Your task to perform on an android device: turn on showing notifications on the lock screen Image 0: 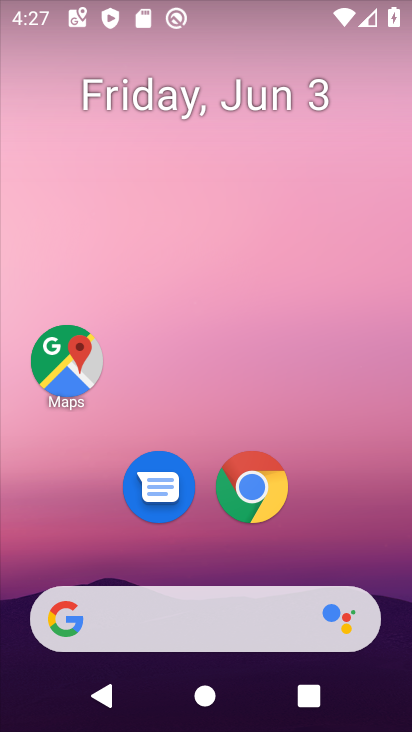
Step 0: click (312, 6)
Your task to perform on an android device: turn on showing notifications on the lock screen Image 1: 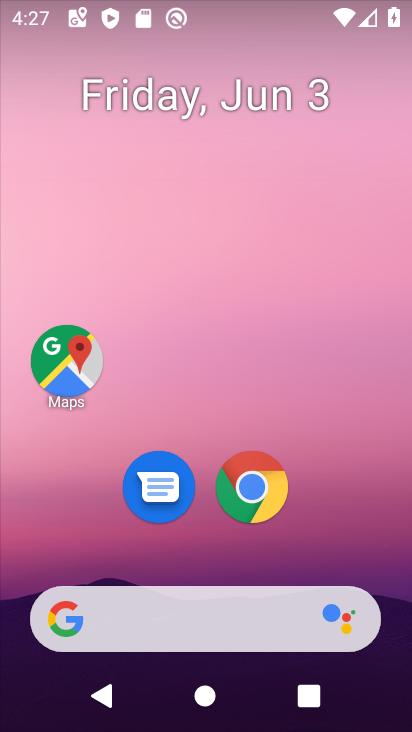
Step 1: drag from (222, 524) to (232, 231)
Your task to perform on an android device: turn on showing notifications on the lock screen Image 2: 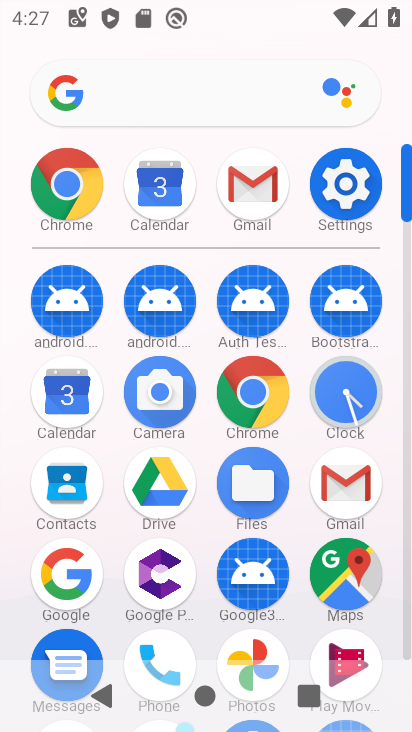
Step 2: click (353, 185)
Your task to perform on an android device: turn on showing notifications on the lock screen Image 3: 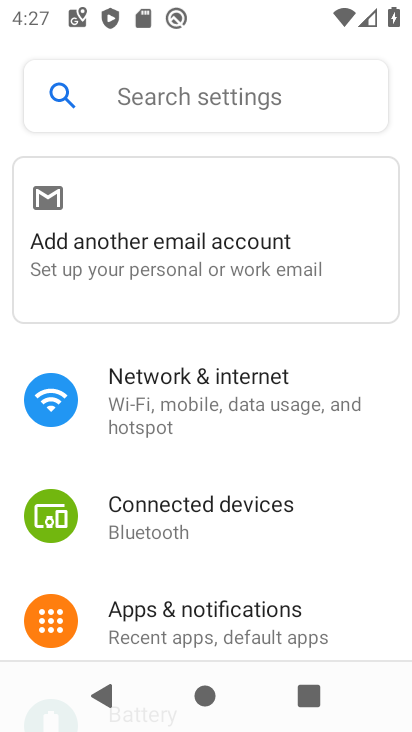
Step 3: drag from (222, 512) to (310, 233)
Your task to perform on an android device: turn on showing notifications on the lock screen Image 4: 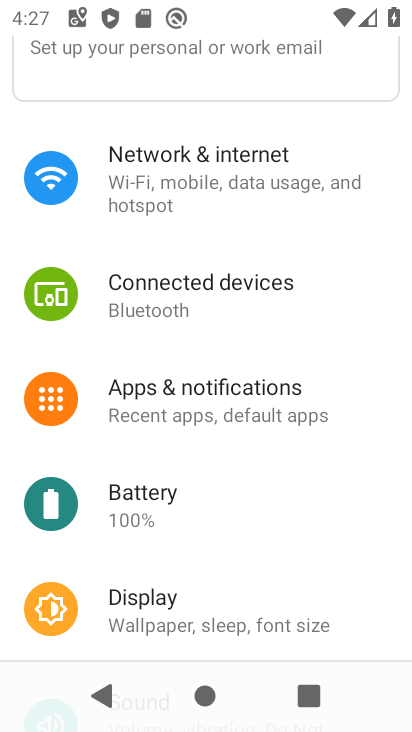
Step 4: click (204, 404)
Your task to perform on an android device: turn on showing notifications on the lock screen Image 5: 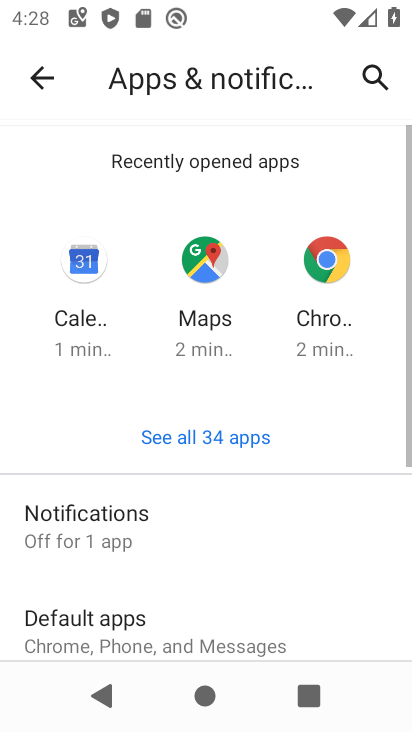
Step 5: click (190, 530)
Your task to perform on an android device: turn on showing notifications on the lock screen Image 6: 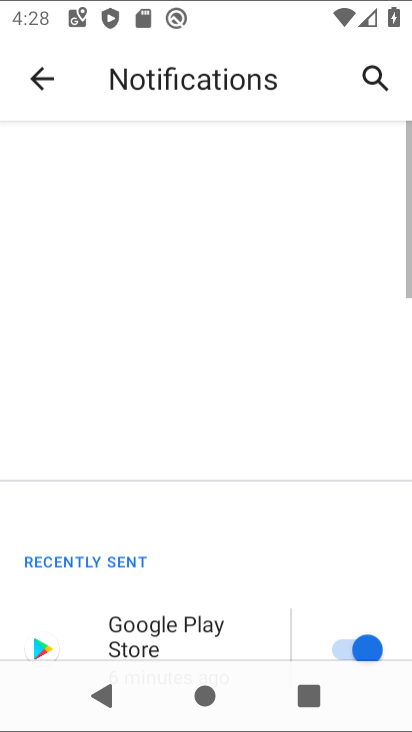
Step 6: drag from (208, 520) to (347, 25)
Your task to perform on an android device: turn on showing notifications on the lock screen Image 7: 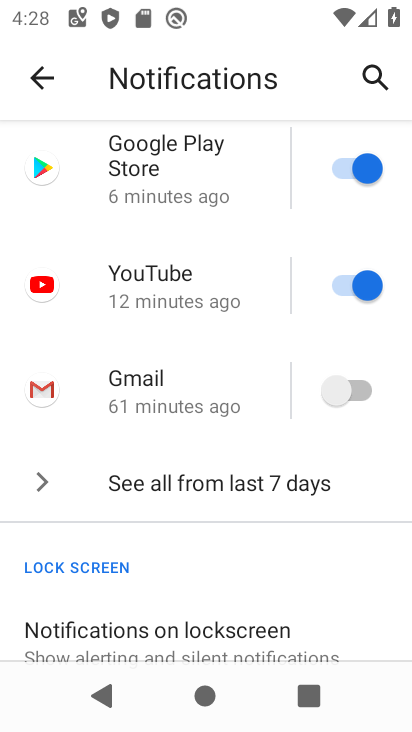
Step 7: drag from (209, 620) to (298, 161)
Your task to perform on an android device: turn on showing notifications on the lock screen Image 8: 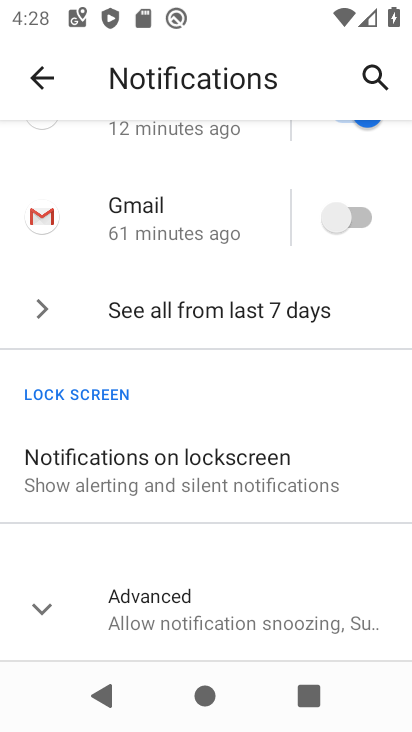
Step 8: click (218, 465)
Your task to perform on an android device: turn on showing notifications on the lock screen Image 9: 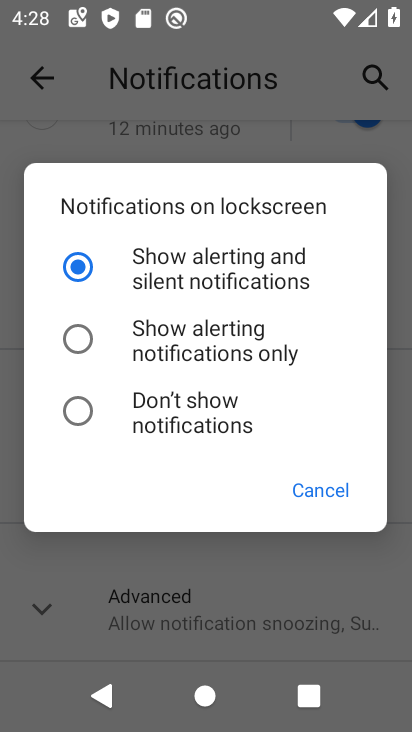
Step 9: drag from (234, 434) to (317, 159)
Your task to perform on an android device: turn on showing notifications on the lock screen Image 10: 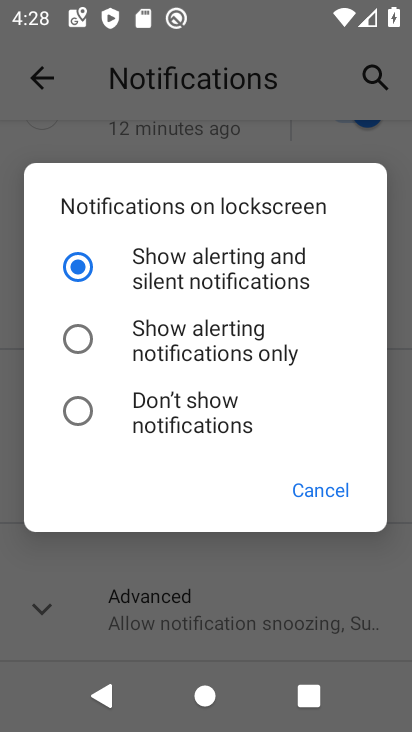
Step 10: click (125, 360)
Your task to perform on an android device: turn on showing notifications on the lock screen Image 11: 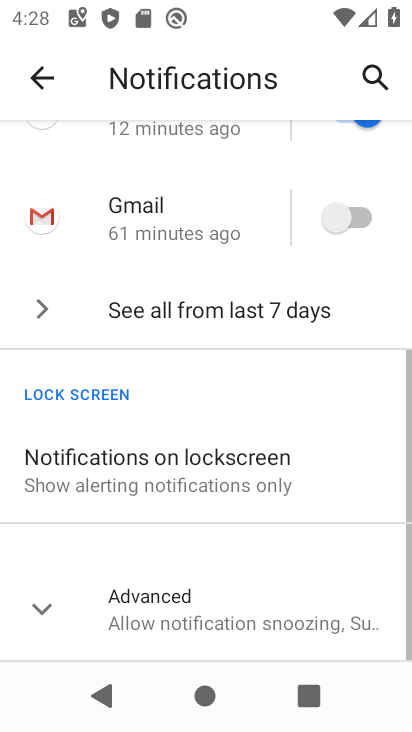
Step 11: task complete